Your task to perform on an android device: turn on javascript in the chrome app Image 0: 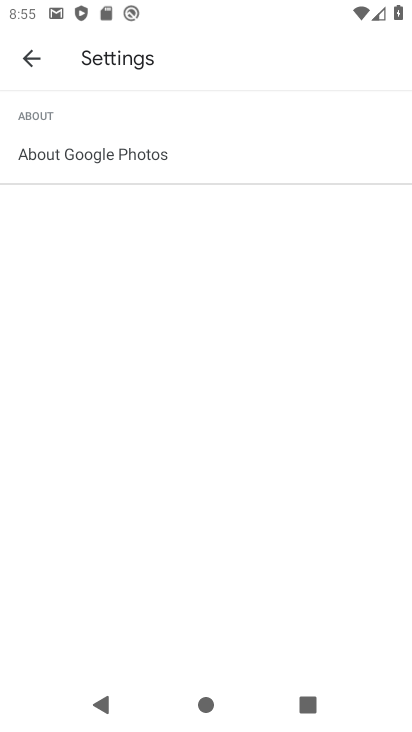
Step 0: press home button
Your task to perform on an android device: turn on javascript in the chrome app Image 1: 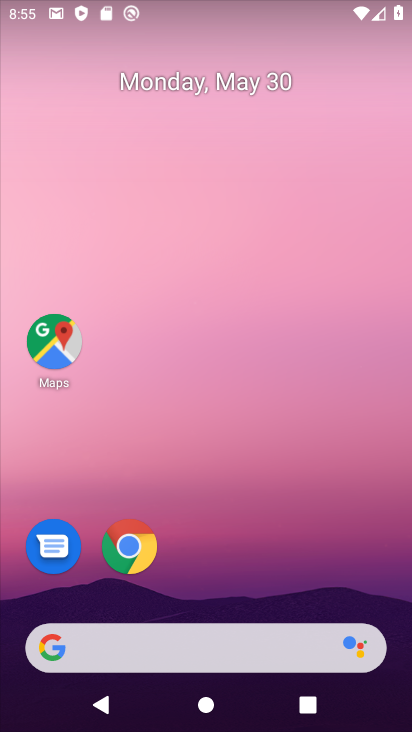
Step 1: click (99, 557)
Your task to perform on an android device: turn on javascript in the chrome app Image 2: 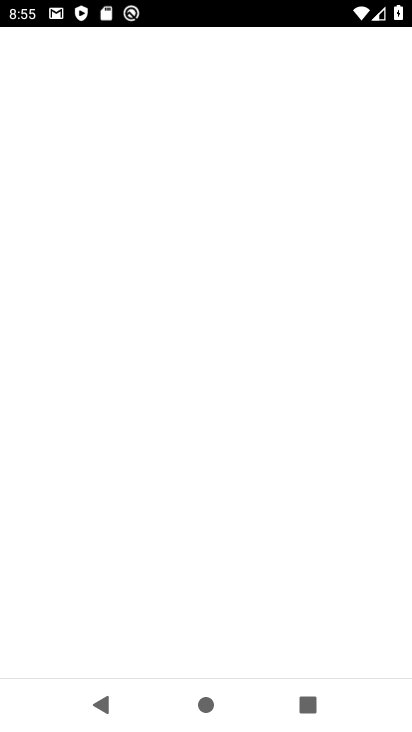
Step 2: click (133, 556)
Your task to perform on an android device: turn on javascript in the chrome app Image 3: 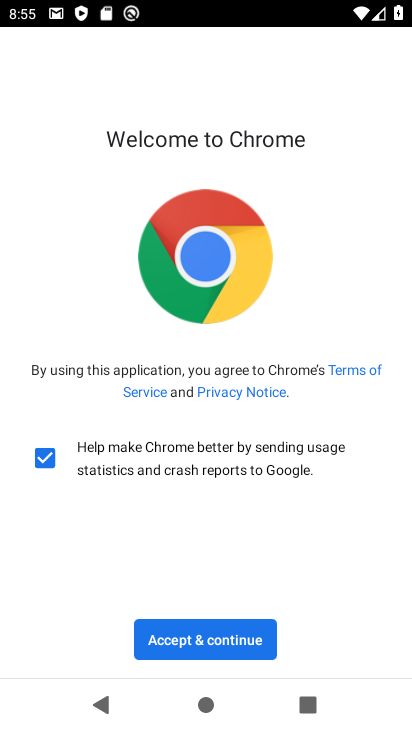
Step 3: click (186, 627)
Your task to perform on an android device: turn on javascript in the chrome app Image 4: 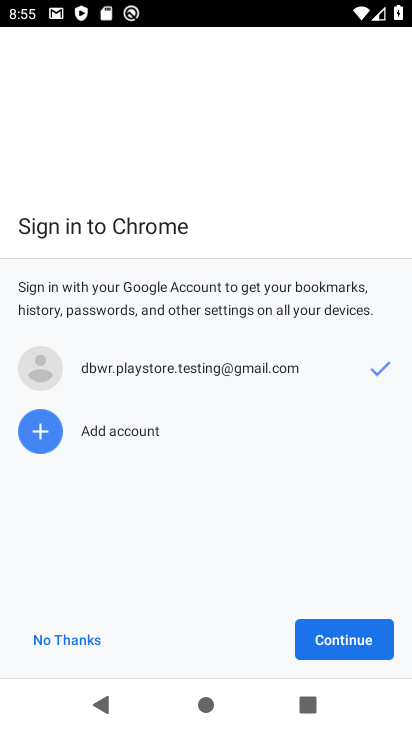
Step 4: click (350, 629)
Your task to perform on an android device: turn on javascript in the chrome app Image 5: 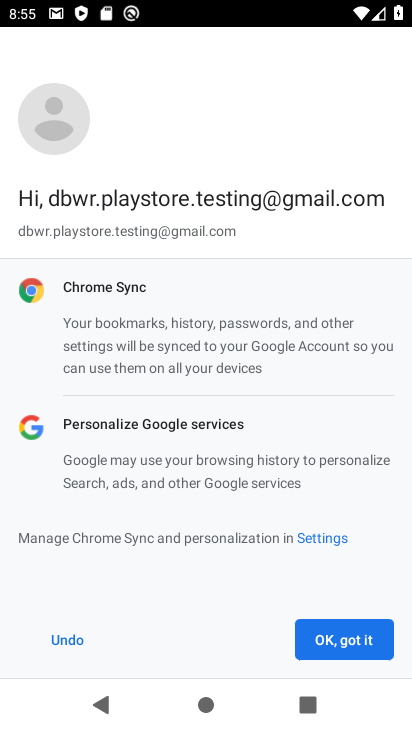
Step 5: click (350, 629)
Your task to perform on an android device: turn on javascript in the chrome app Image 6: 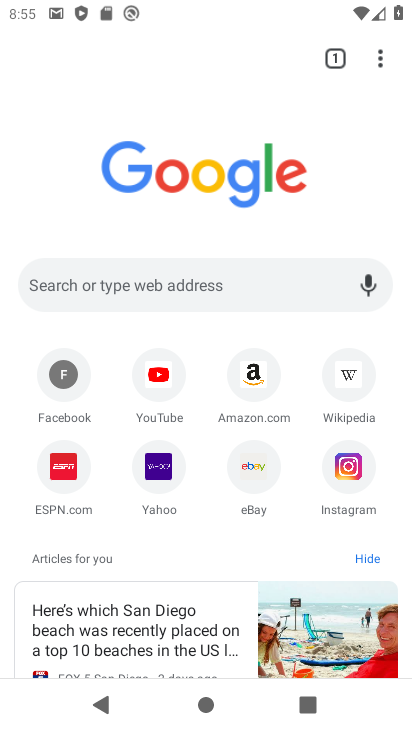
Step 6: click (381, 47)
Your task to perform on an android device: turn on javascript in the chrome app Image 7: 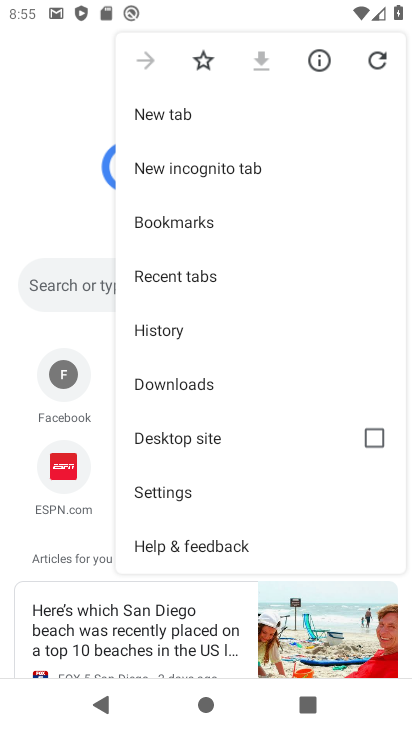
Step 7: click (379, 55)
Your task to perform on an android device: turn on javascript in the chrome app Image 8: 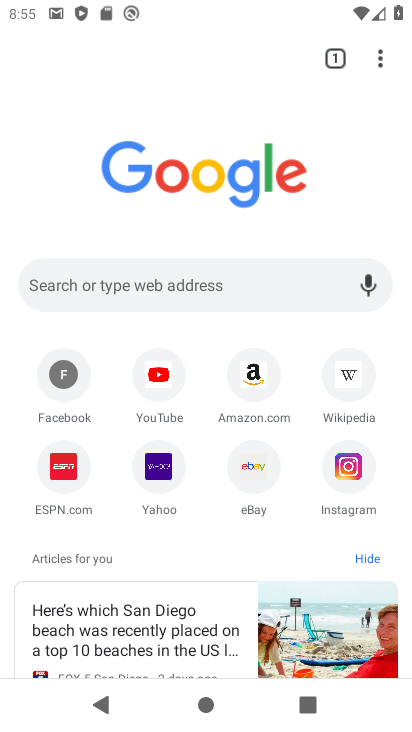
Step 8: click (384, 67)
Your task to perform on an android device: turn on javascript in the chrome app Image 9: 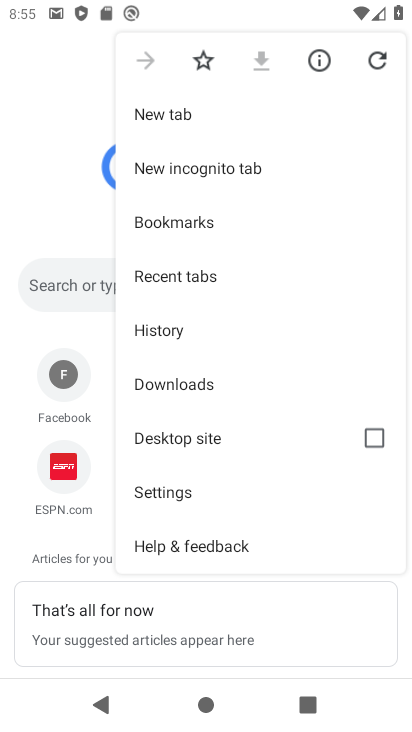
Step 9: click (174, 492)
Your task to perform on an android device: turn on javascript in the chrome app Image 10: 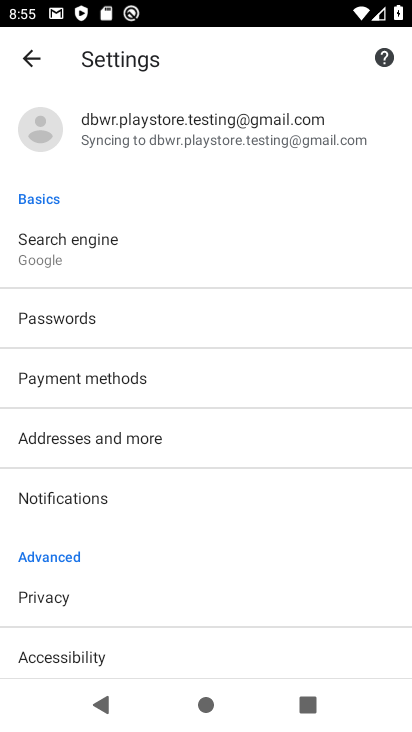
Step 10: drag from (218, 569) to (182, 275)
Your task to perform on an android device: turn on javascript in the chrome app Image 11: 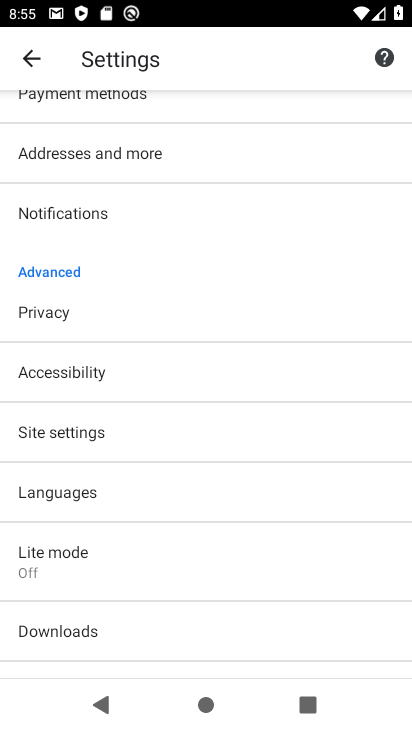
Step 11: click (68, 429)
Your task to perform on an android device: turn on javascript in the chrome app Image 12: 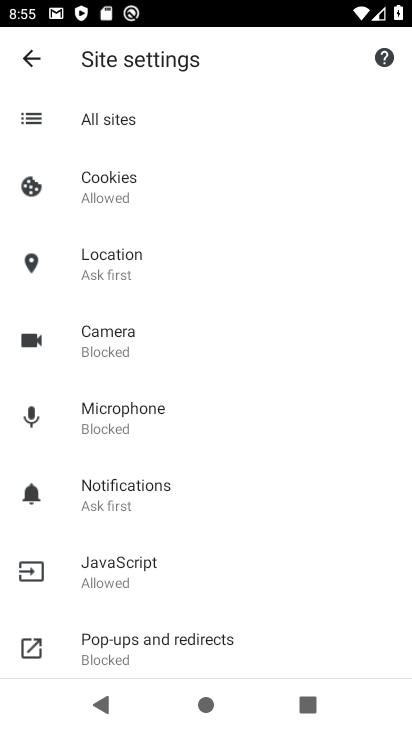
Step 12: click (128, 555)
Your task to perform on an android device: turn on javascript in the chrome app Image 13: 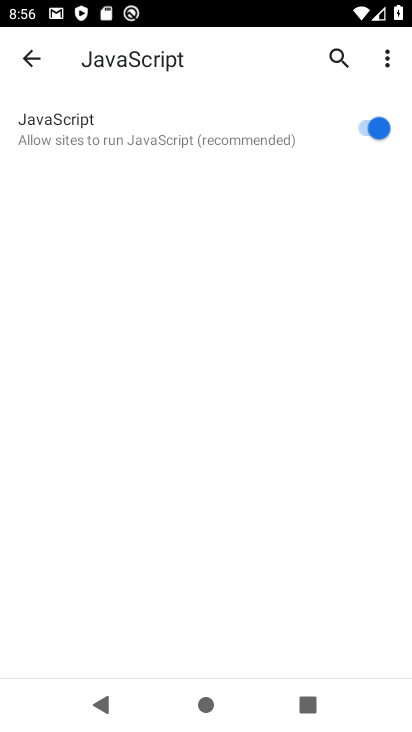
Step 13: task complete